Your task to perform on an android device: Open calendar and show me the first week of next month Image 0: 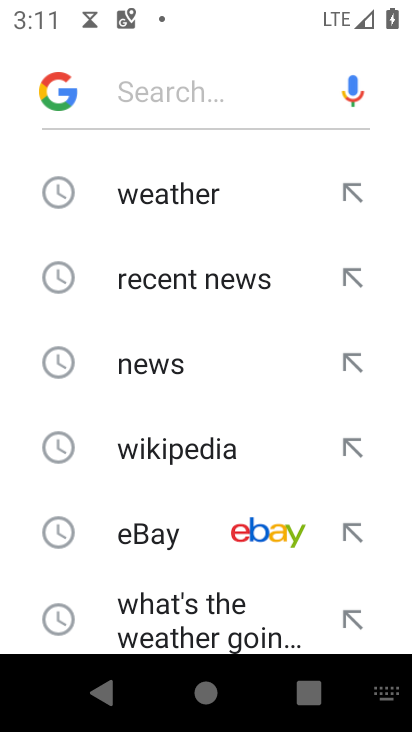
Step 0: press home button
Your task to perform on an android device: Open calendar and show me the first week of next month Image 1: 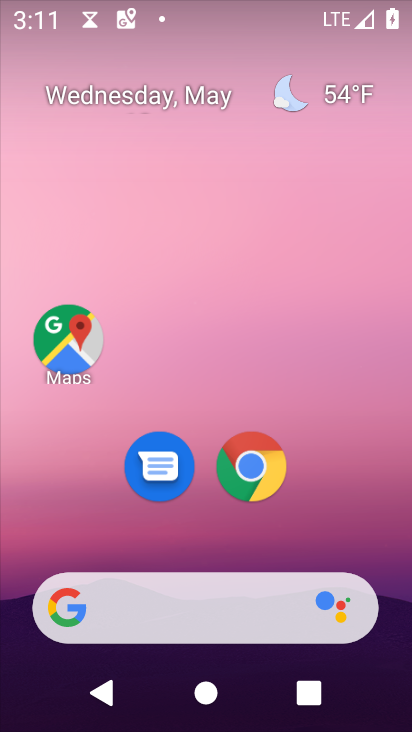
Step 1: drag from (361, 506) to (314, 62)
Your task to perform on an android device: Open calendar and show me the first week of next month Image 2: 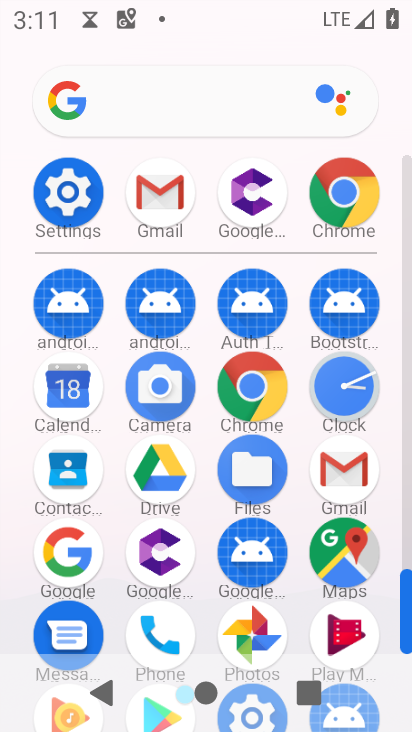
Step 2: click (78, 383)
Your task to perform on an android device: Open calendar and show me the first week of next month Image 3: 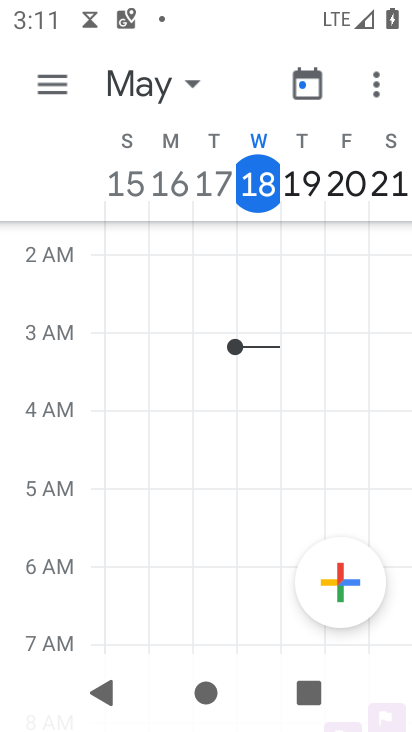
Step 3: click (187, 80)
Your task to perform on an android device: Open calendar and show me the first week of next month Image 4: 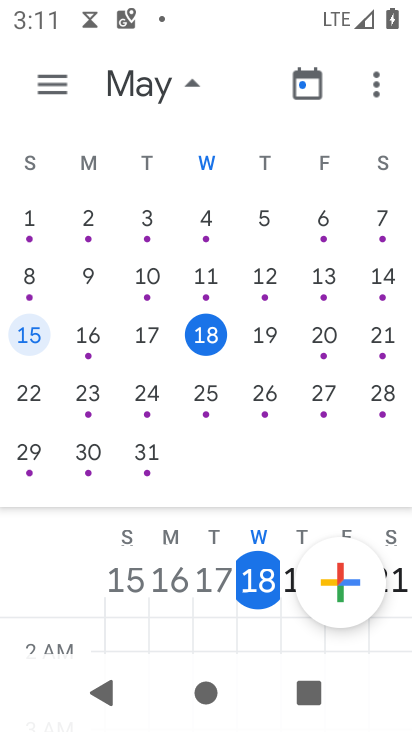
Step 4: drag from (391, 360) to (6, 362)
Your task to perform on an android device: Open calendar and show me the first week of next month Image 5: 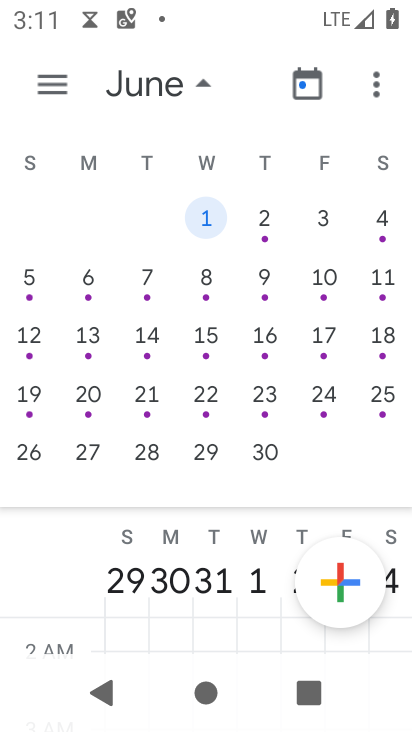
Step 5: click (208, 274)
Your task to perform on an android device: Open calendar and show me the first week of next month Image 6: 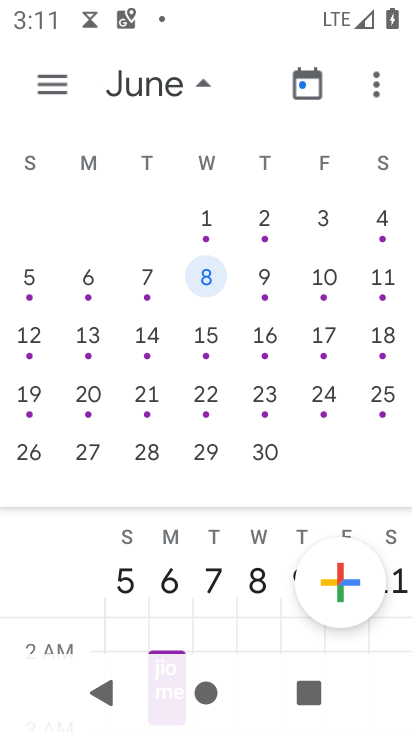
Step 6: task complete